Your task to perform on an android device: What is the recent news? Image 0: 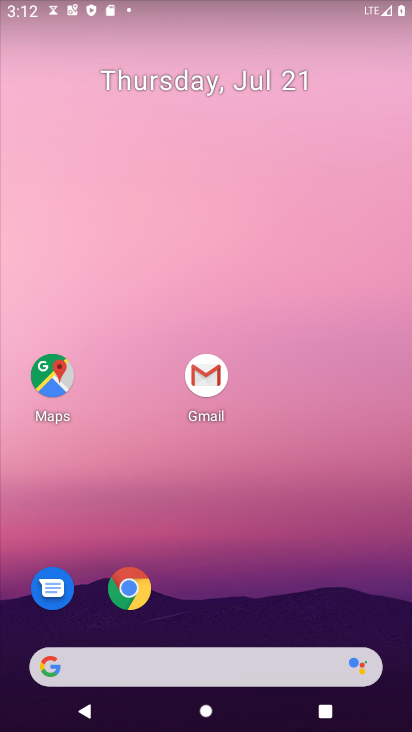
Step 0: drag from (203, 628) to (199, 221)
Your task to perform on an android device: What is the recent news? Image 1: 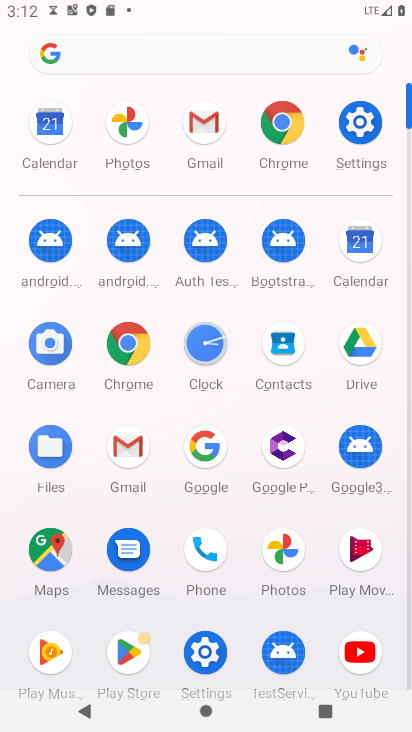
Step 1: click (203, 48)
Your task to perform on an android device: What is the recent news? Image 2: 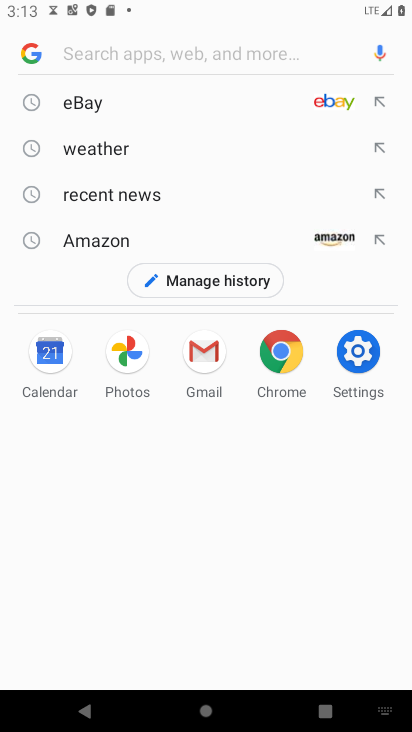
Step 2: type " recent news?"
Your task to perform on an android device: What is the recent news? Image 3: 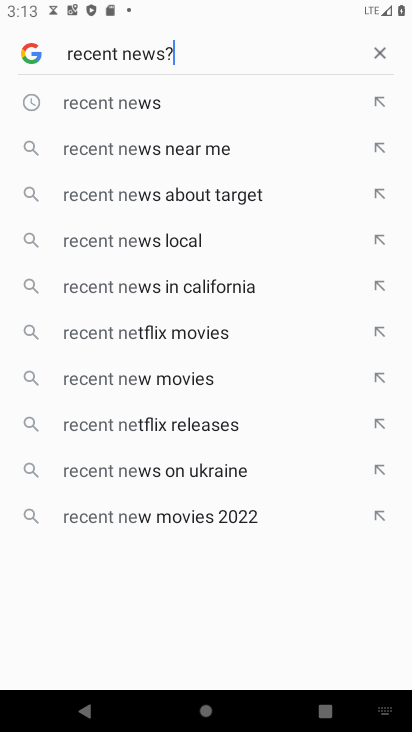
Step 3: type ""
Your task to perform on an android device: What is the recent news? Image 4: 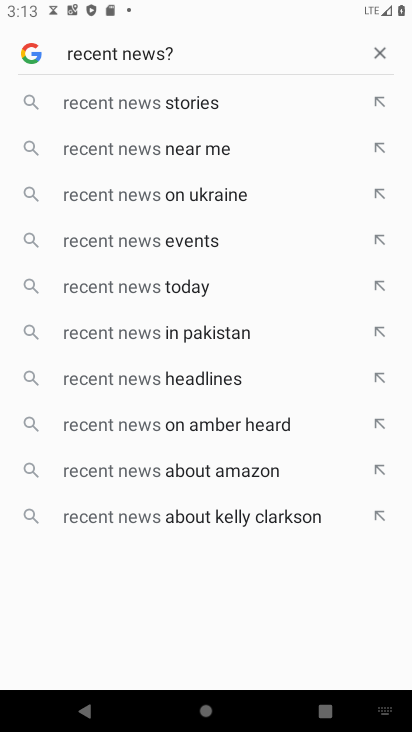
Step 4: click (152, 287)
Your task to perform on an android device: What is the recent news? Image 5: 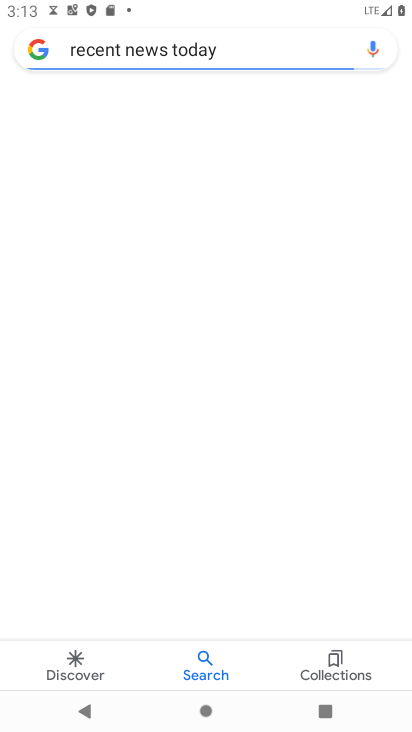
Step 5: task complete